Your task to perform on an android device: set an alarm Image 0: 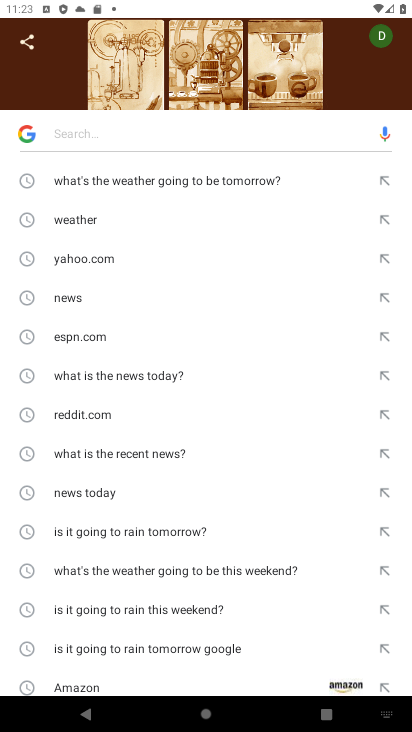
Step 0: press home button
Your task to perform on an android device: set an alarm Image 1: 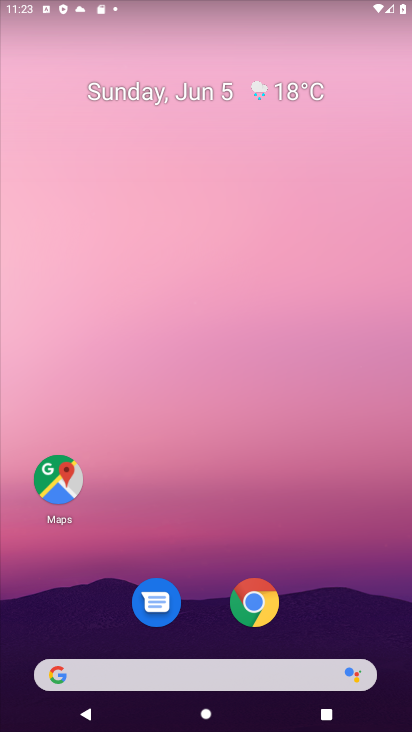
Step 1: drag from (309, 646) to (224, 289)
Your task to perform on an android device: set an alarm Image 2: 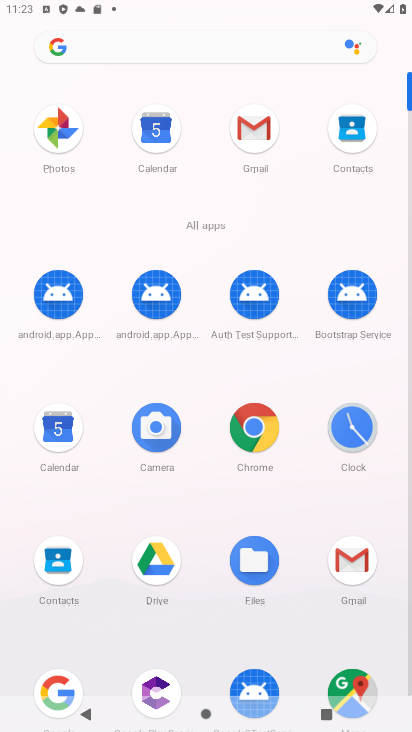
Step 2: click (368, 431)
Your task to perform on an android device: set an alarm Image 3: 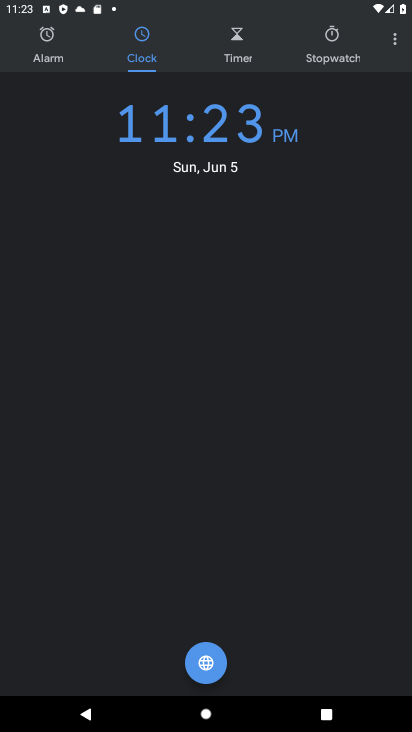
Step 3: click (55, 49)
Your task to perform on an android device: set an alarm Image 4: 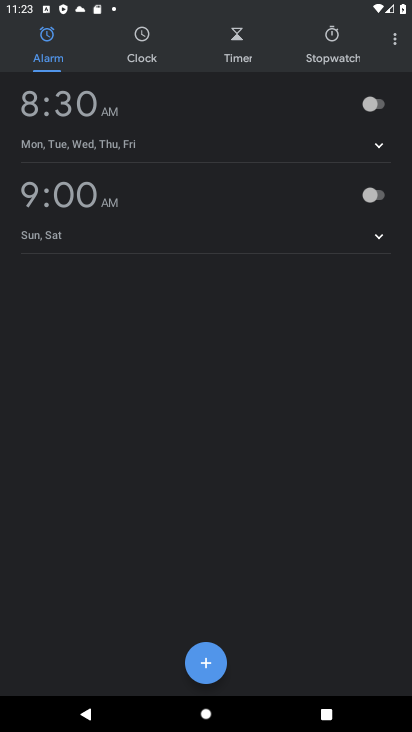
Step 4: task complete